Your task to perform on an android device: delete browsing data in the chrome app Image 0: 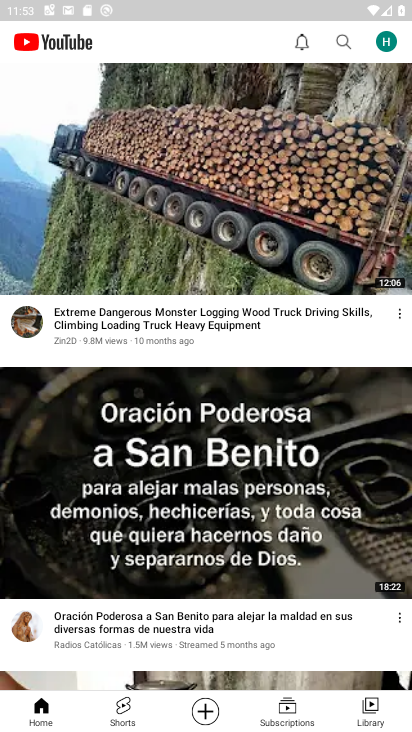
Step 0: press home button
Your task to perform on an android device: delete browsing data in the chrome app Image 1: 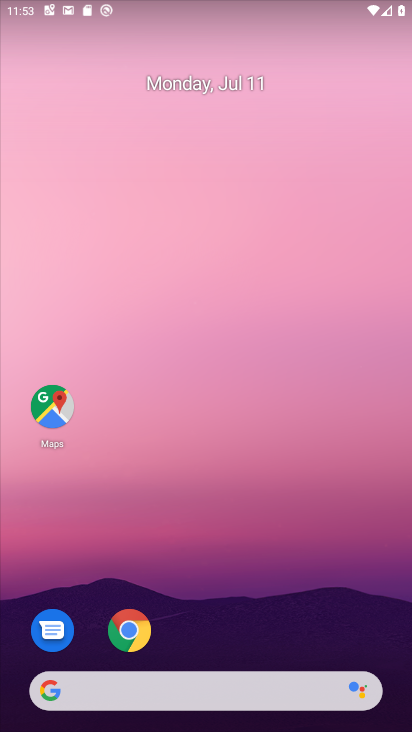
Step 1: click (148, 639)
Your task to perform on an android device: delete browsing data in the chrome app Image 2: 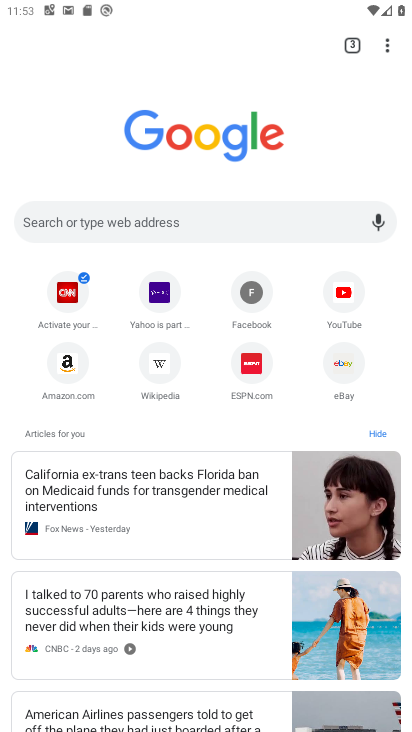
Step 2: click (385, 57)
Your task to perform on an android device: delete browsing data in the chrome app Image 3: 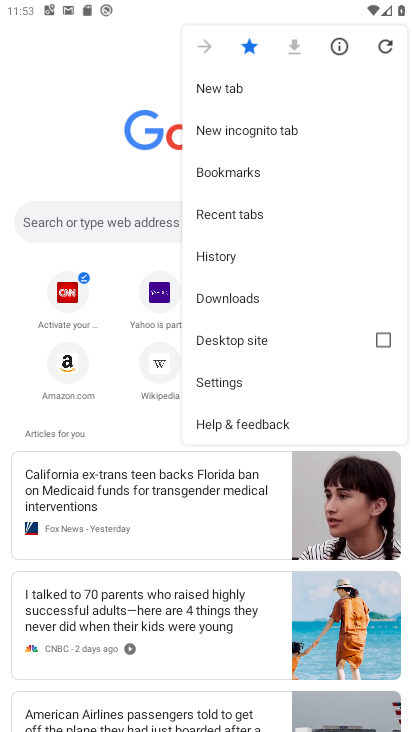
Step 3: click (230, 256)
Your task to perform on an android device: delete browsing data in the chrome app Image 4: 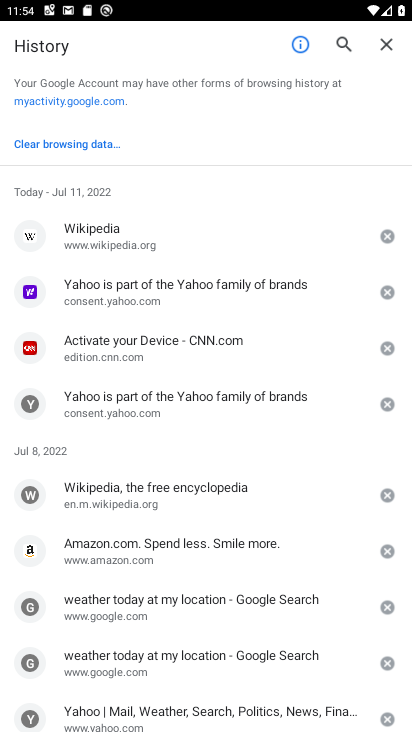
Step 4: click (76, 143)
Your task to perform on an android device: delete browsing data in the chrome app Image 5: 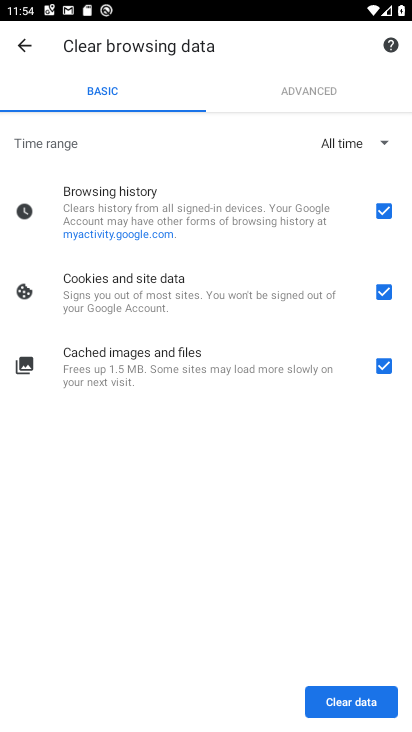
Step 5: click (340, 707)
Your task to perform on an android device: delete browsing data in the chrome app Image 6: 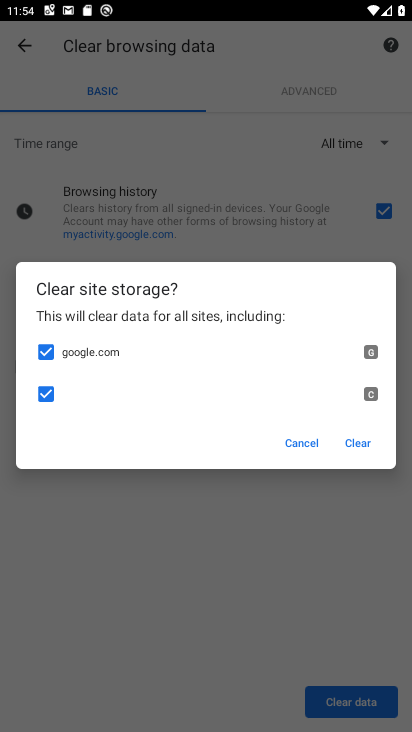
Step 6: click (364, 440)
Your task to perform on an android device: delete browsing data in the chrome app Image 7: 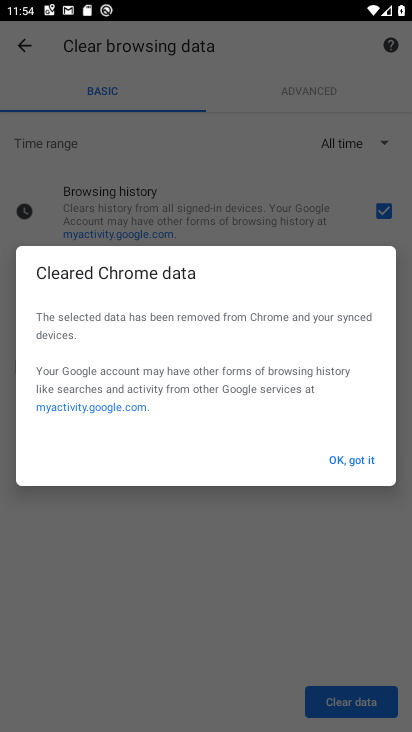
Step 7: click (354, 463)
Your task to perform on an android device: delete browsing data in the chrome app Image 8: 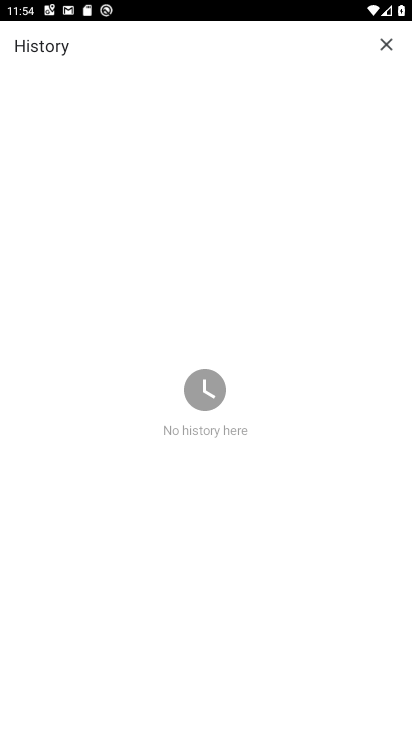
Step 8: task complete